Your task to perform on an android device: open app "The Home Depot" (install if not already installed), go to login, and select forgot password Image 0: 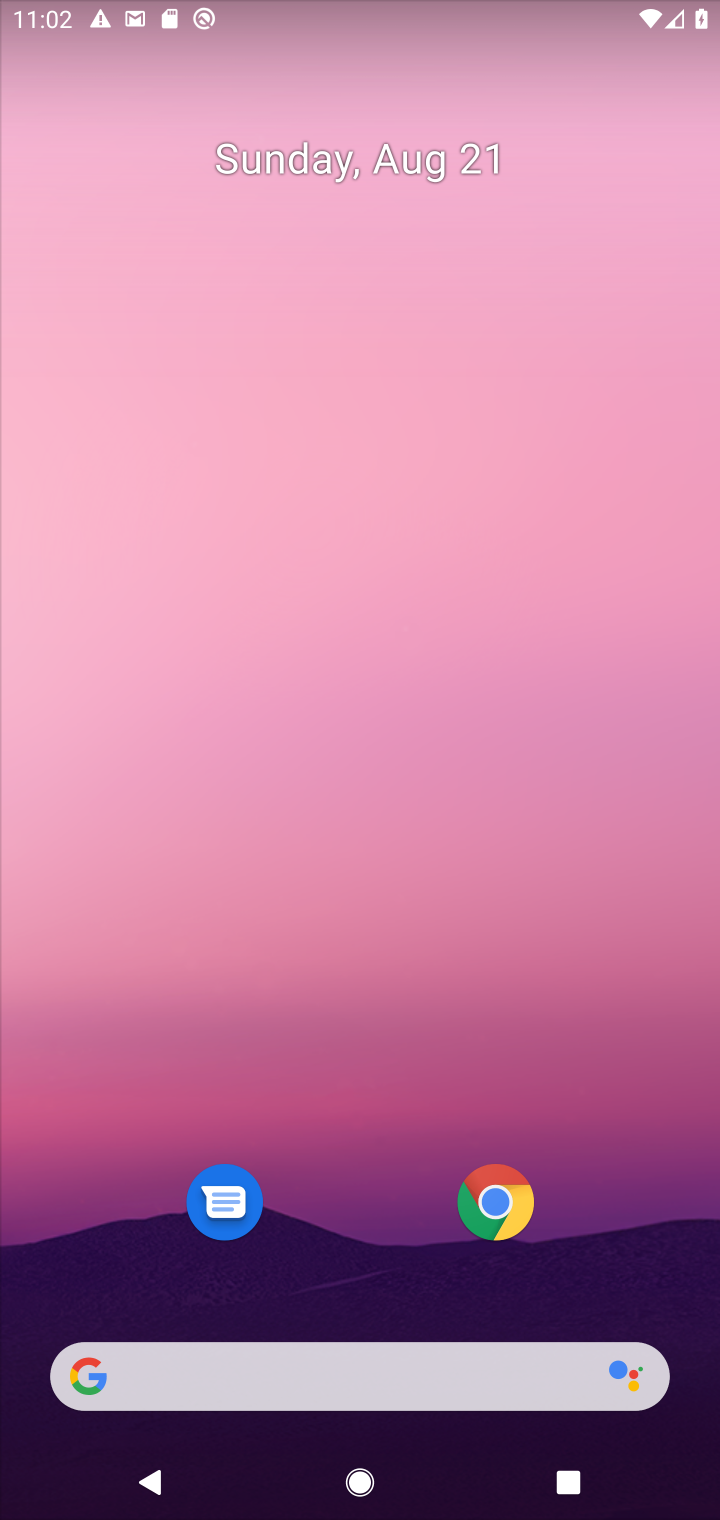
Step 0: drag from (369, 666) to (369, 176)
Your task to perform on an android device: open app "The Home Depot" (install if not already installed), go to login, and select forgot password Image 1: 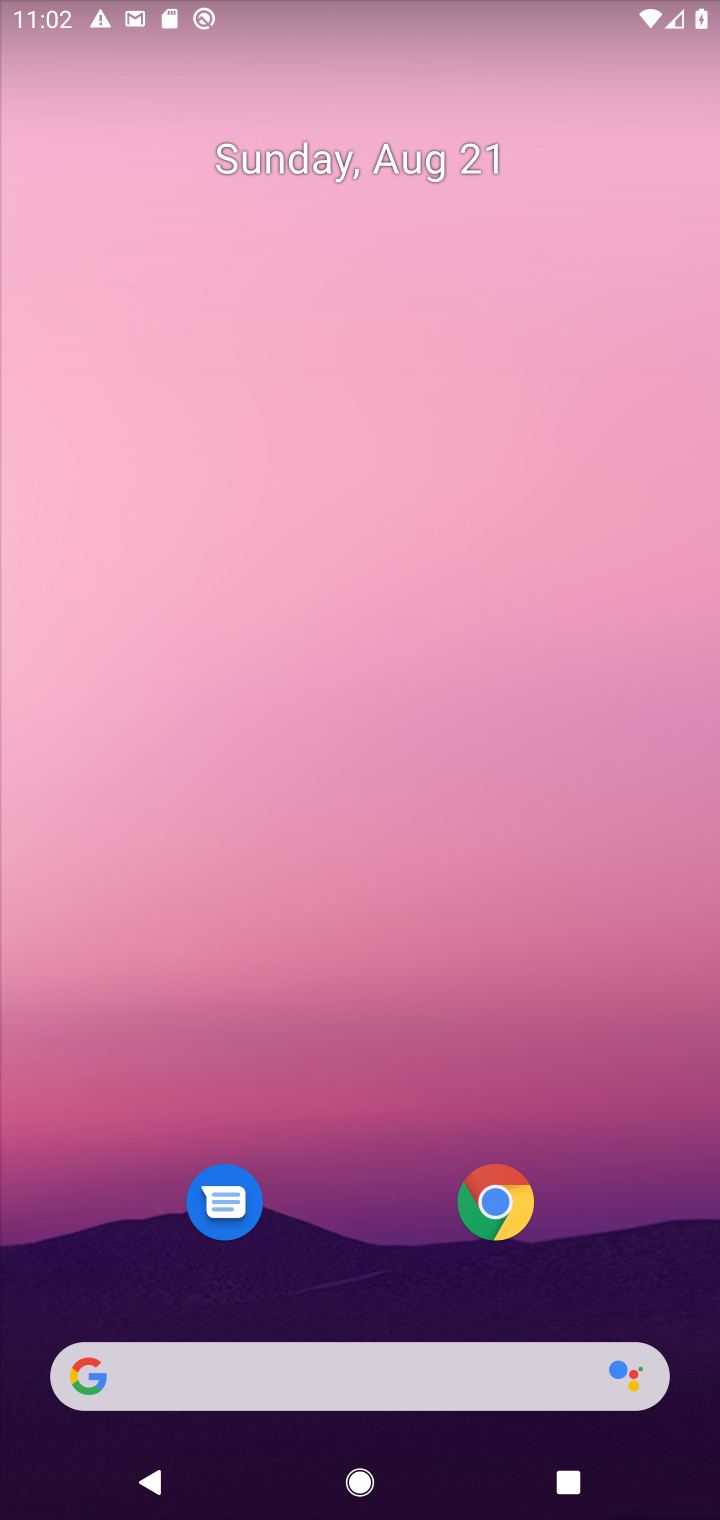
Step 1: drag from (418, 806) to (428, 121)
Your task to perform on an android device: open app "The Home Depot" (install if not already installed), go to login, and select forgot password Image 2: 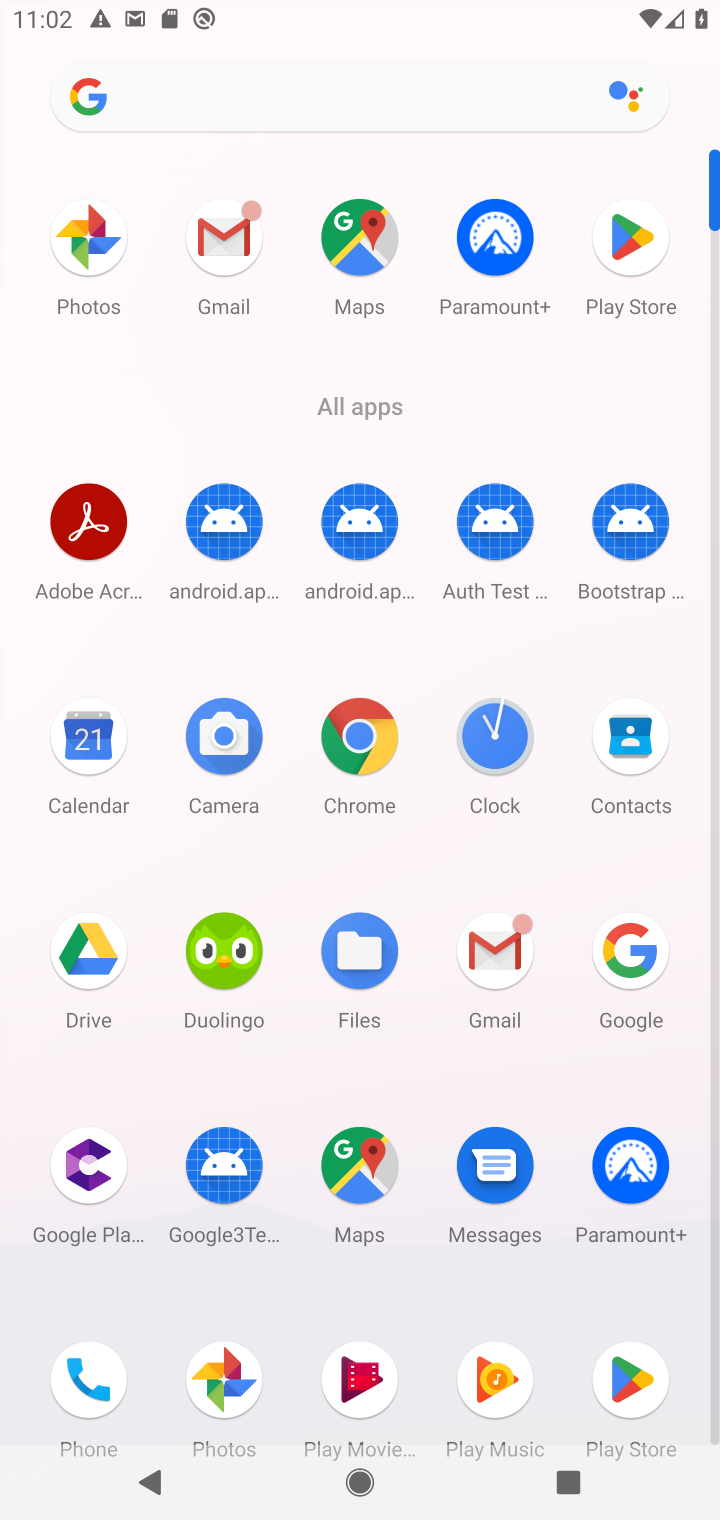
Step 2: click (620, 1379)
Your task to perform on an android device: open app "The Home Depot" (install if not already installed), go to login, and select forgot password Image 3: 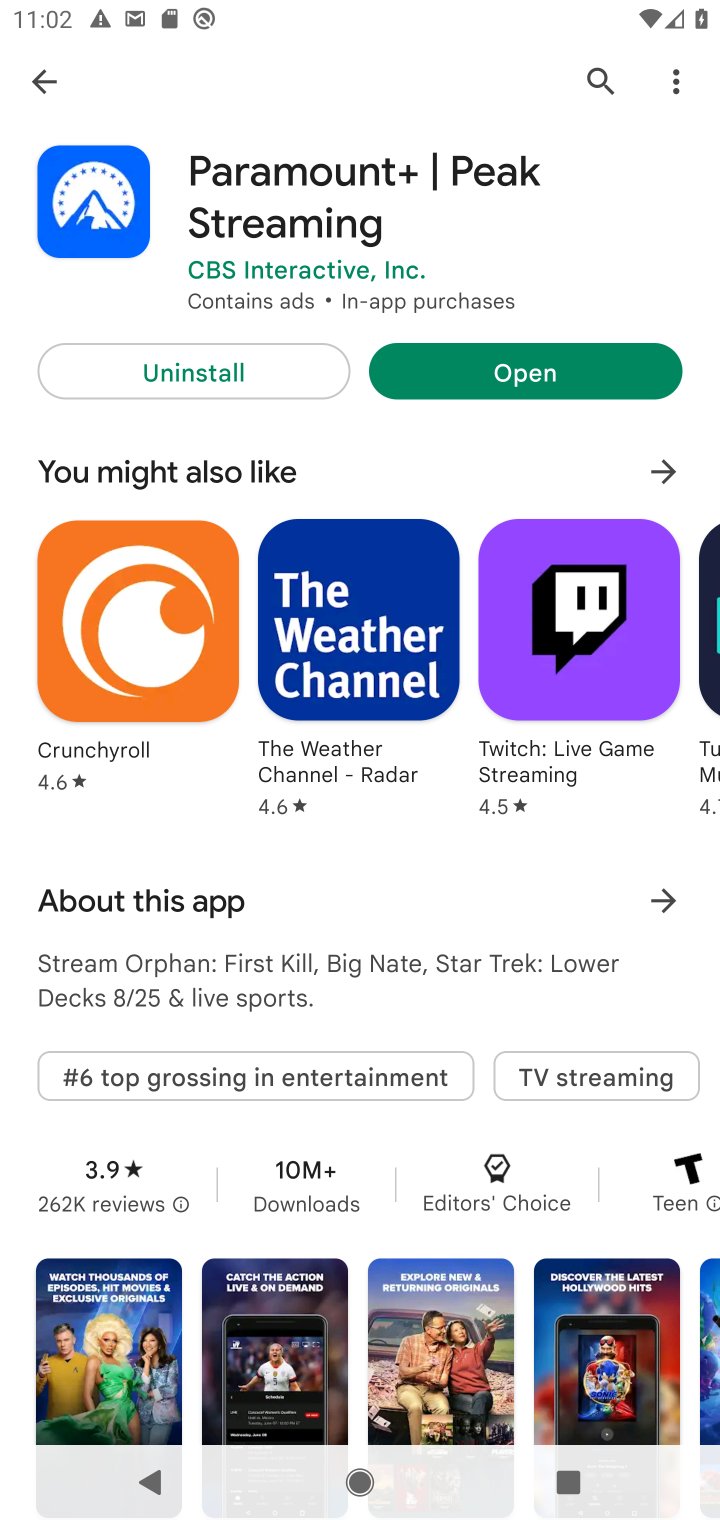
Step 3: click (688, 94)
Your task to perform on an android device: open app "The Home Depot" (install if not already installed), go to login, and select forgot password Image 4: 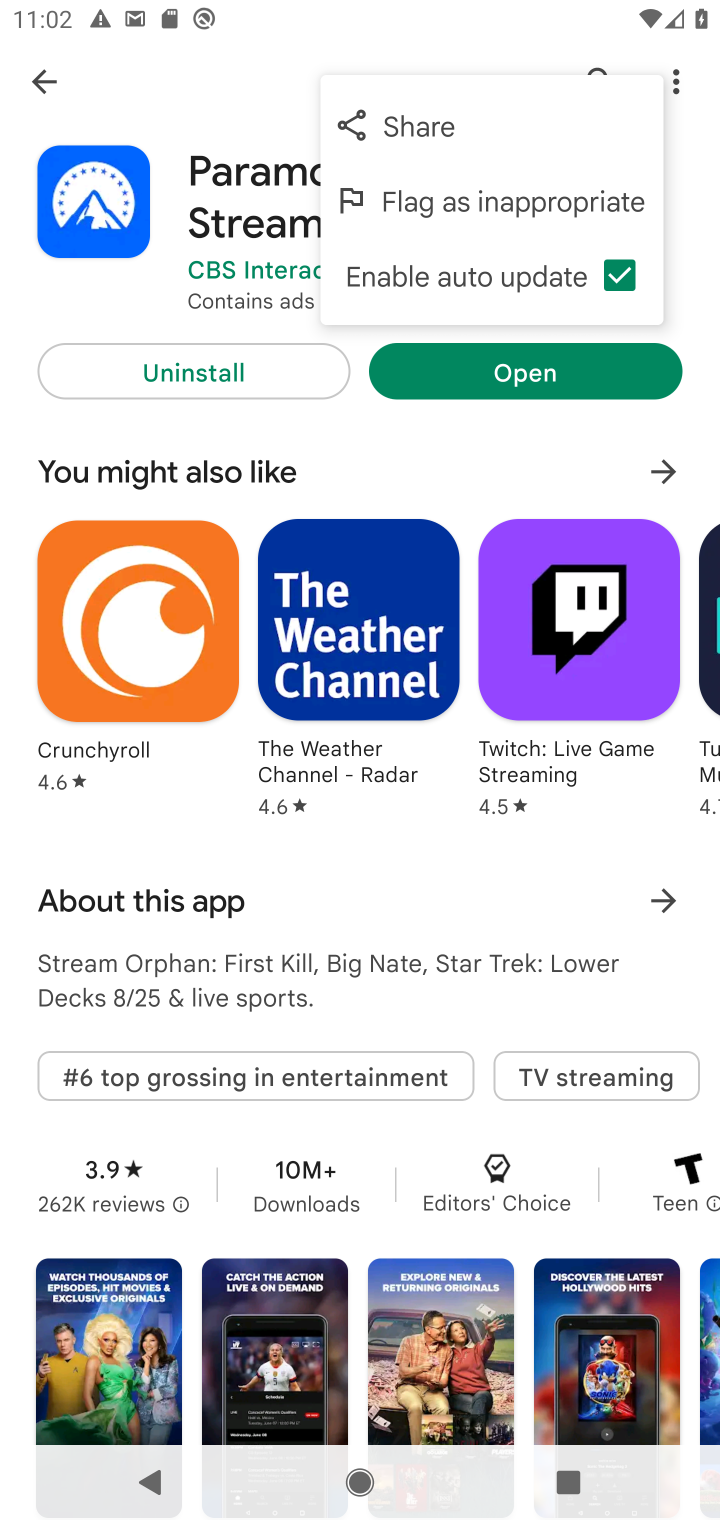
Step 4: click (586, 73)
Your task to perform on an android device: open app "The Home Depot" (install if not already installed), go to login, and select forgot password Image 5: 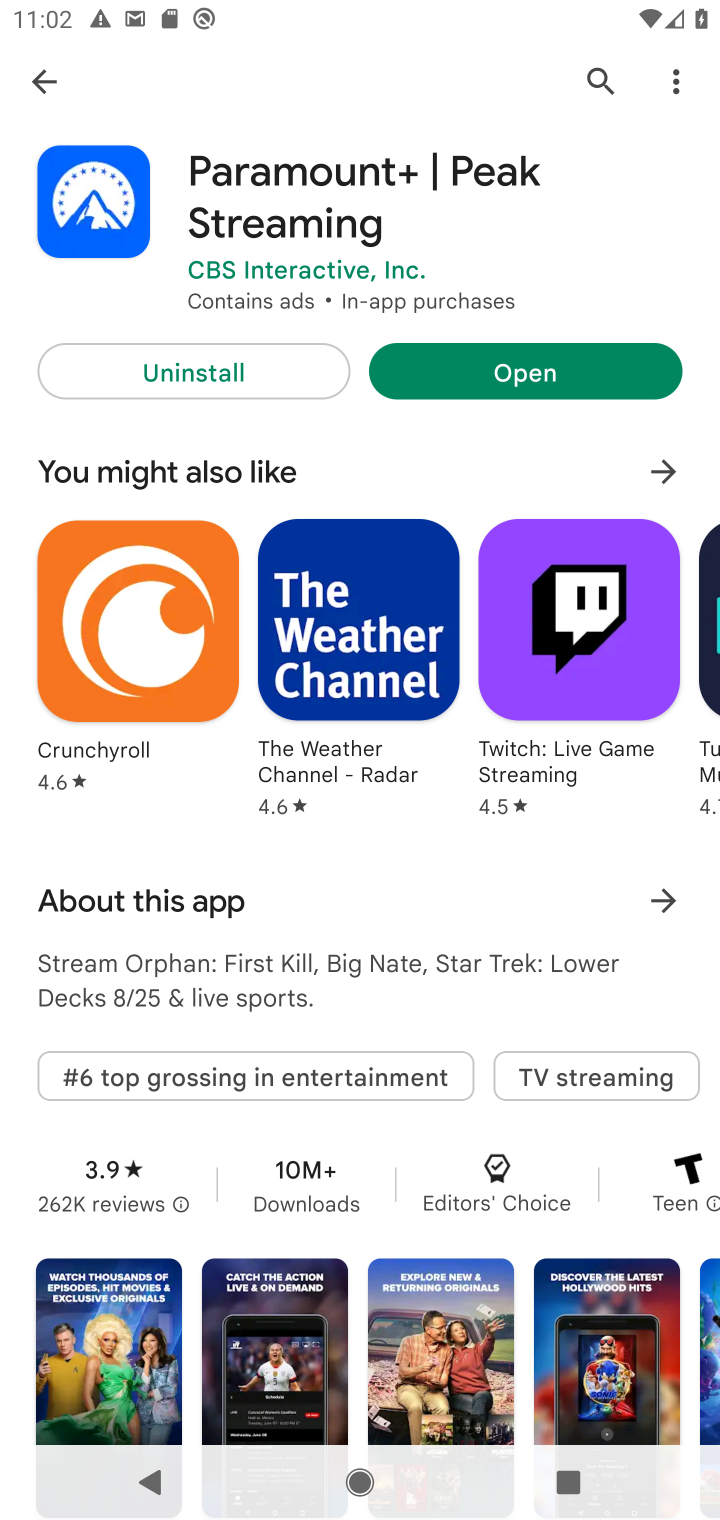
Step 5: click (593, 78)
Your task to perform on an android device: open app "The Home Depot" (install if not already installed), go to login, and select forgot password Image 6: 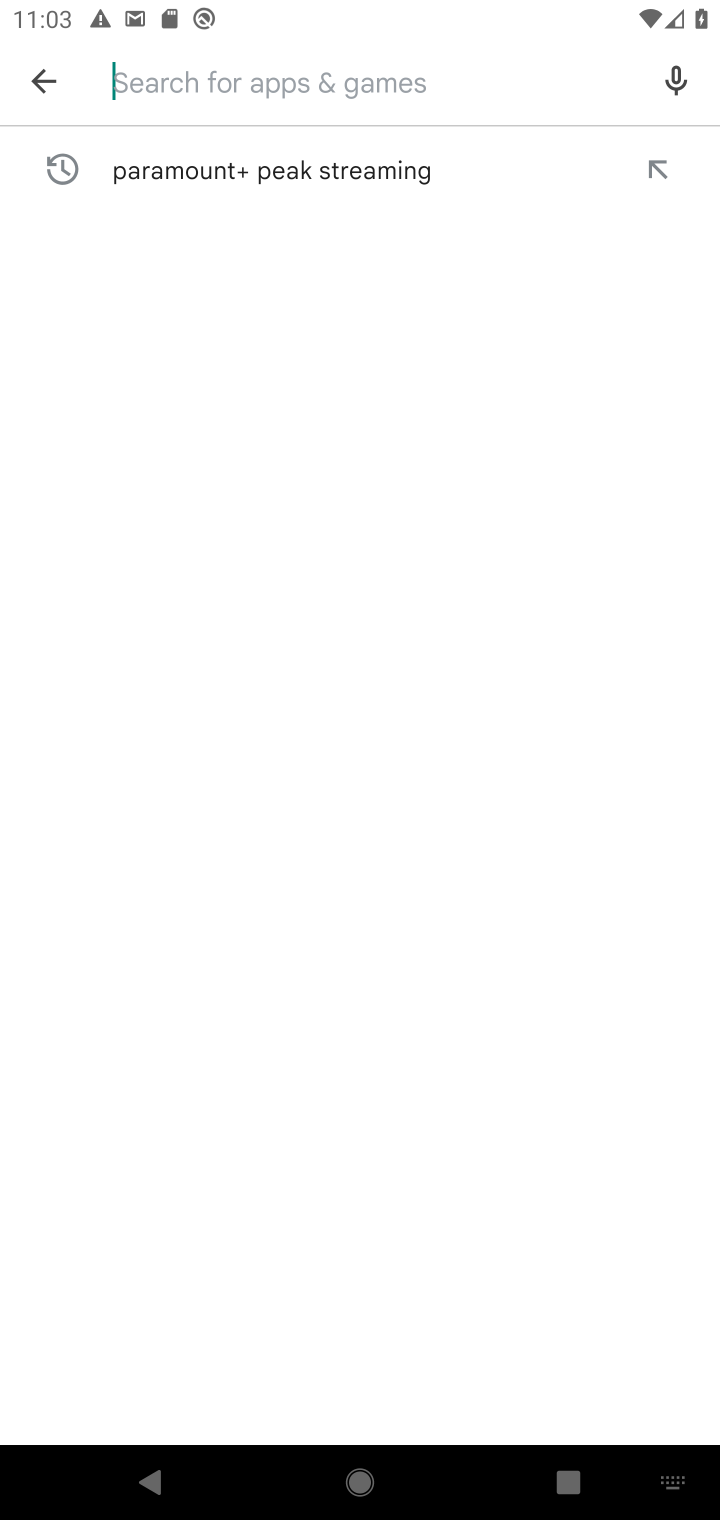
Step 6: type "The Home Depot"
Your task to perform on an android device: open app "The Home Depot" (install if not already installed), go to login, and select forgot password Image 7: 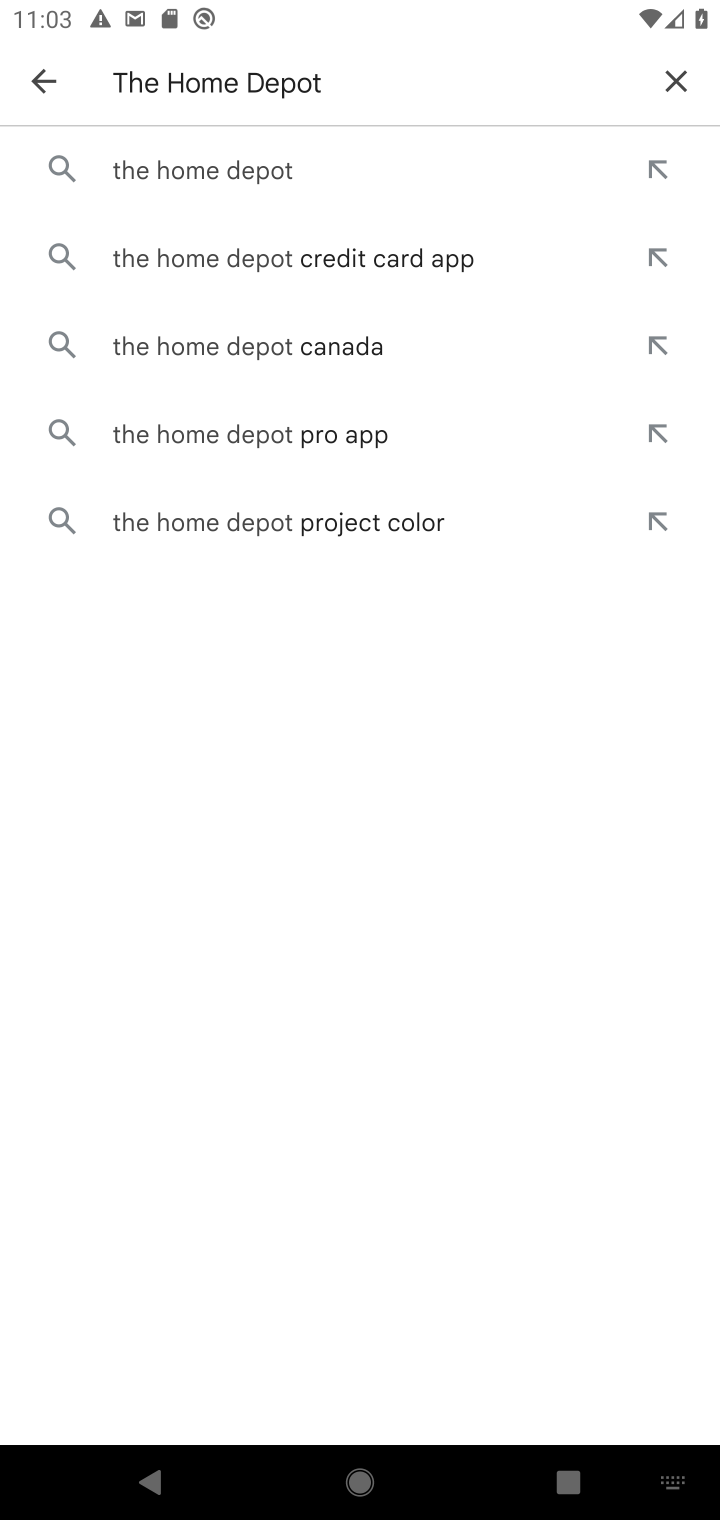
Step 7: click (236, 168)
Your task to perform on an android device: open app "The Home Depot" (install if not already installed), go to login, and select forgot password Image 8: 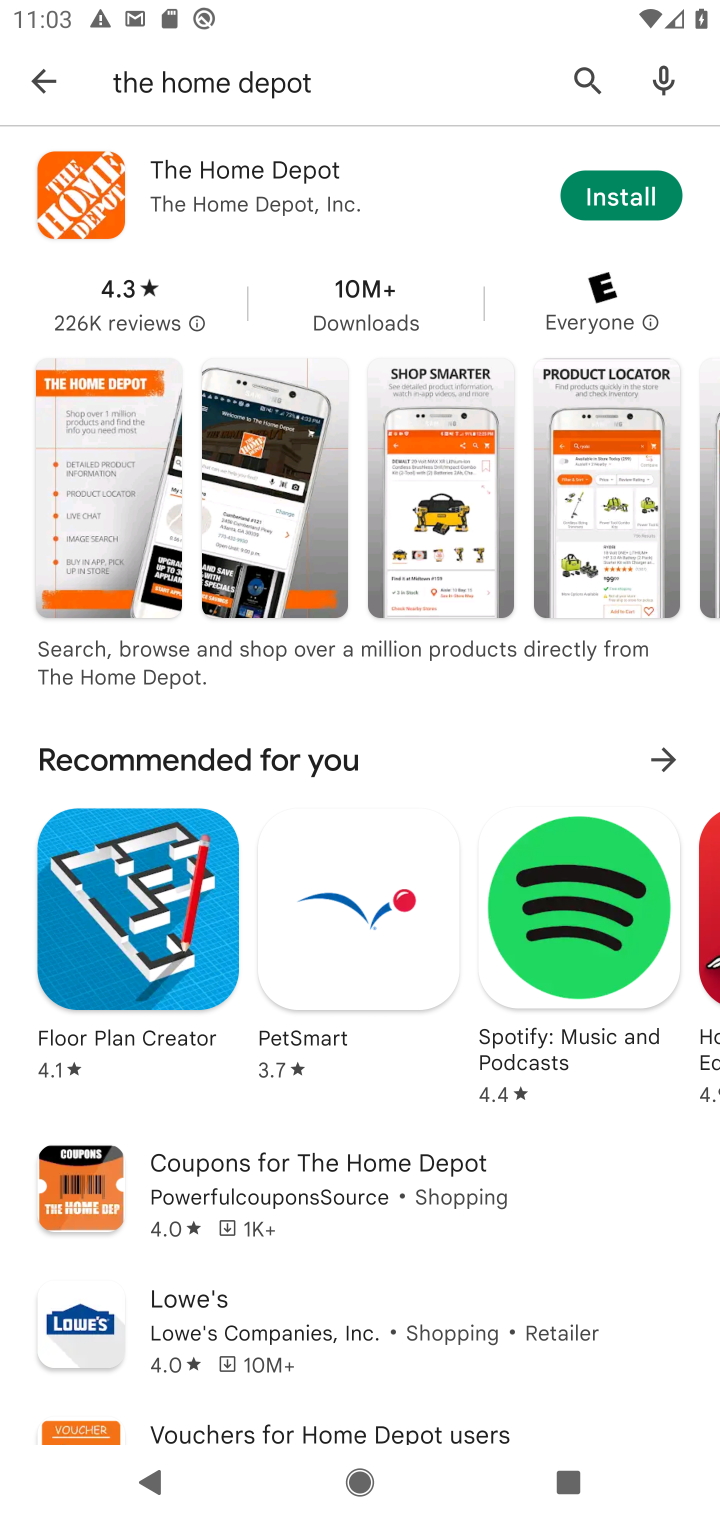
Step 8: click (638, 196)
Your task to perform on an android device: open app "The Home Depot" (install if not already installed), go to login, and select forgot password Image 9: 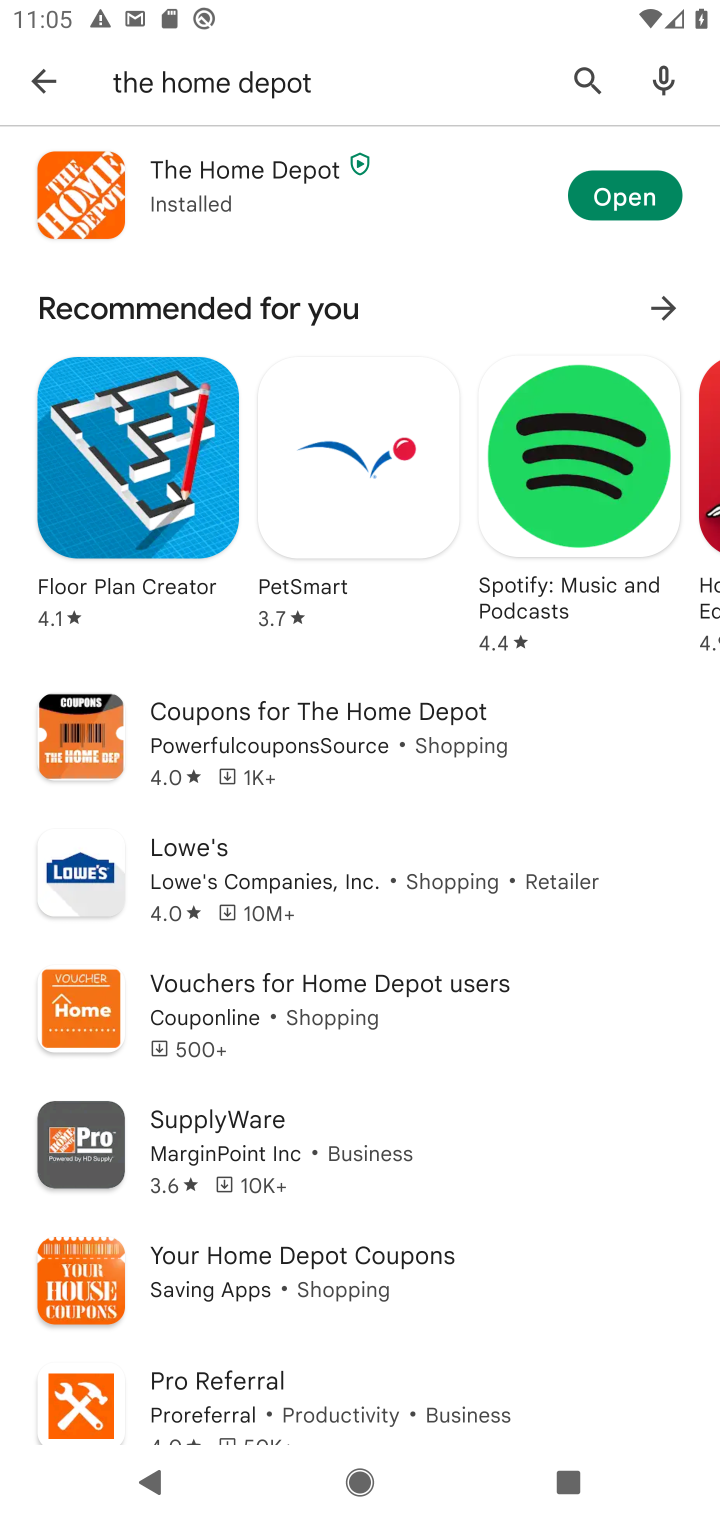
Step 9: click (627, 189)
Your task to perform on an android device: open app "The Home Depot" (install if not already installed), go to login, and select forgot password Image 10: 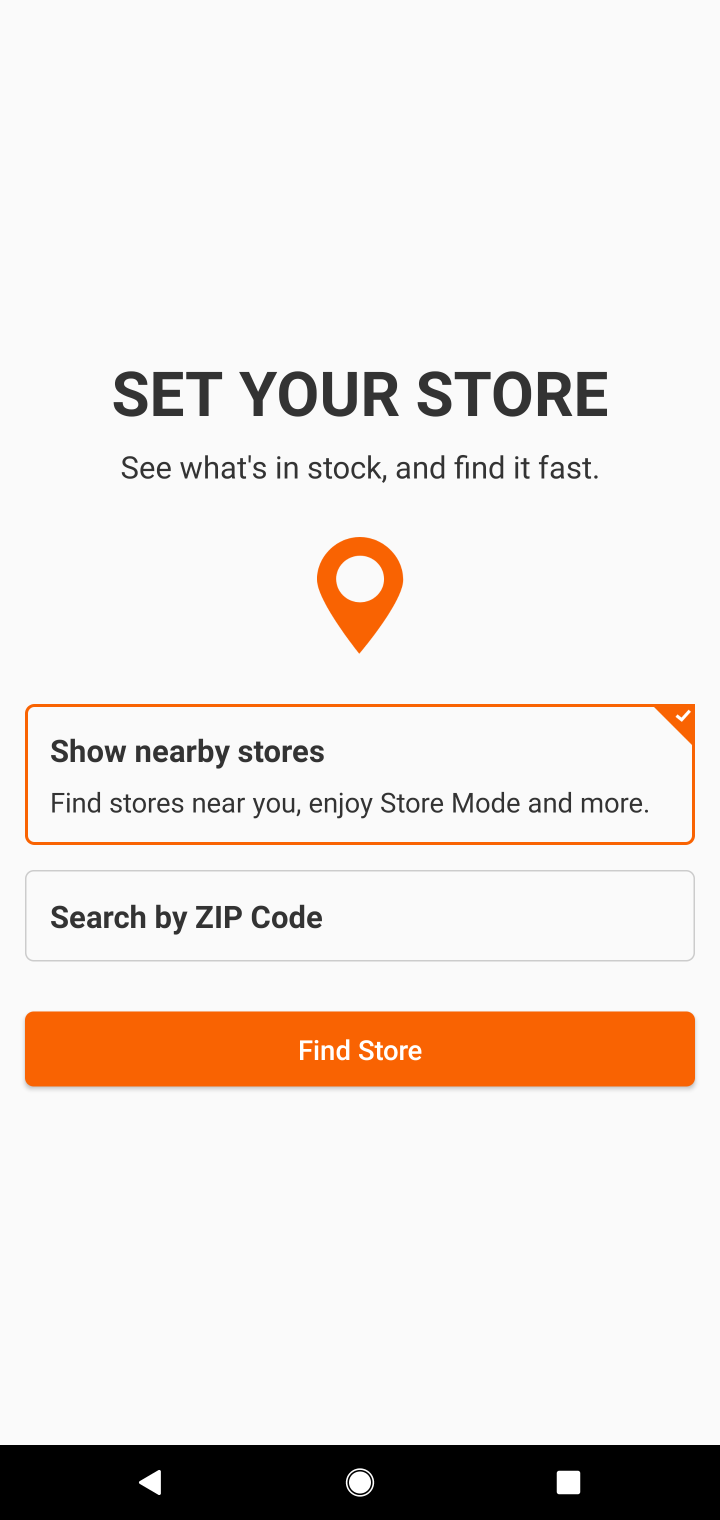
Step 10: click (501, 911)
Your task to perform on an android device: open app "The Home Depot" (install if not already installed), go to login, and select forgot password Image 11: 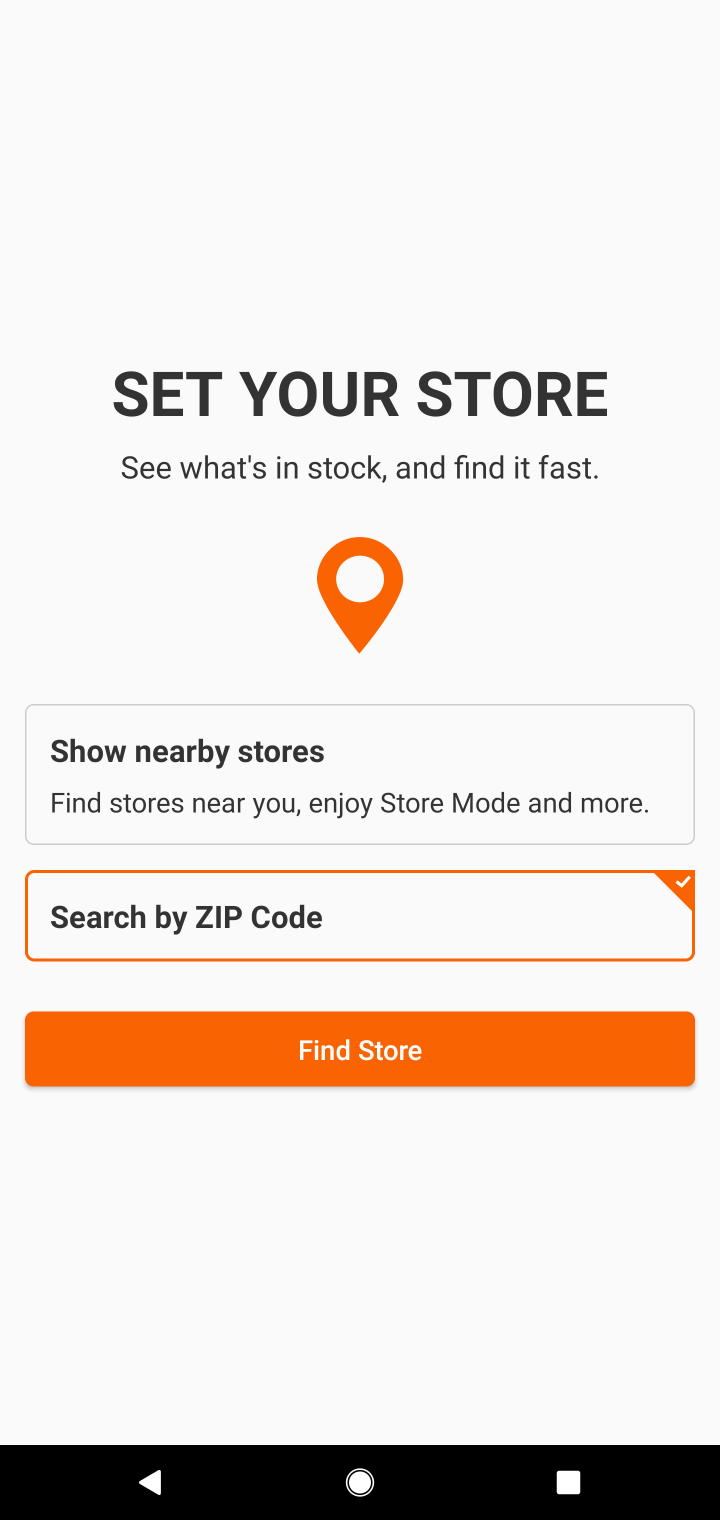
Step 11: task complete